Your task to perform on an android device: toggle data saver in the chrome app Image 0: 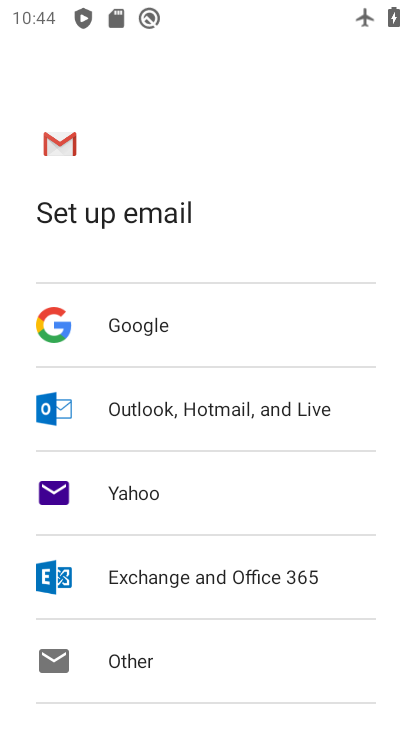
Step 0: press home button
Your task to perform on an android device: toggle data saver in the chrome app Image 1: 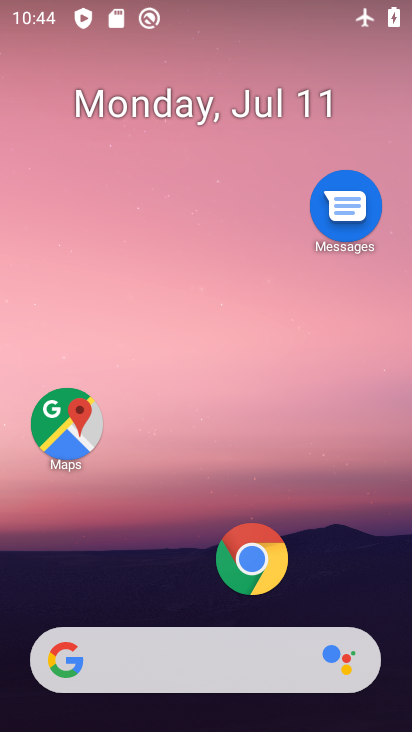
Step 1: drag from (344, 550) to (341, 147)
Your task to perform on an android device: toggle data saver in the chrome app Image 2: 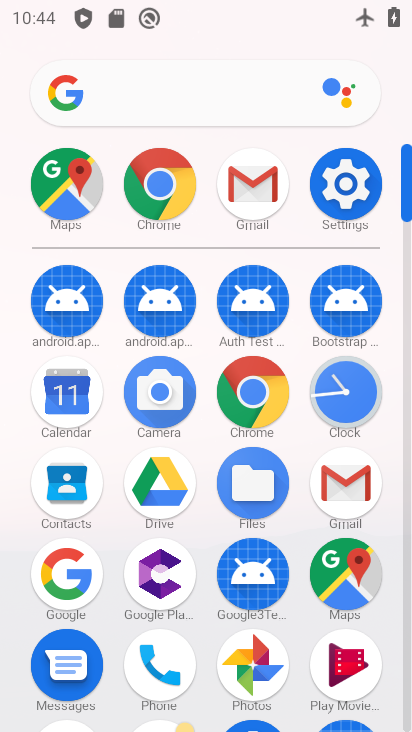
Step 2: click (255, 372)
Your task to perform on an android device: toggle data saver in the chrome app Image 3: 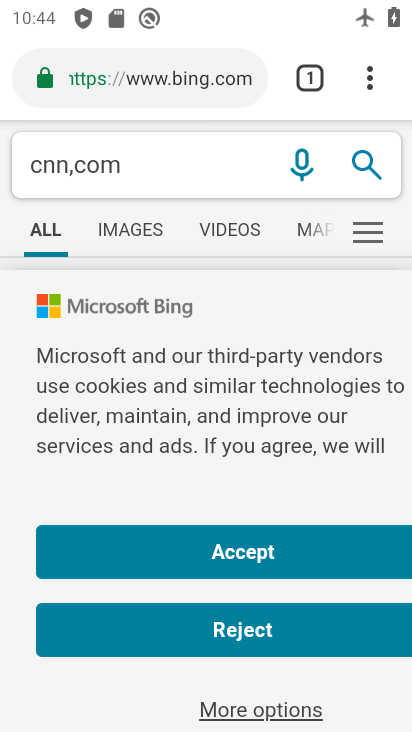
Step 3: click (367, 85)
Your task to perform on an android device: toggle data saver in the chrome app Image 4: 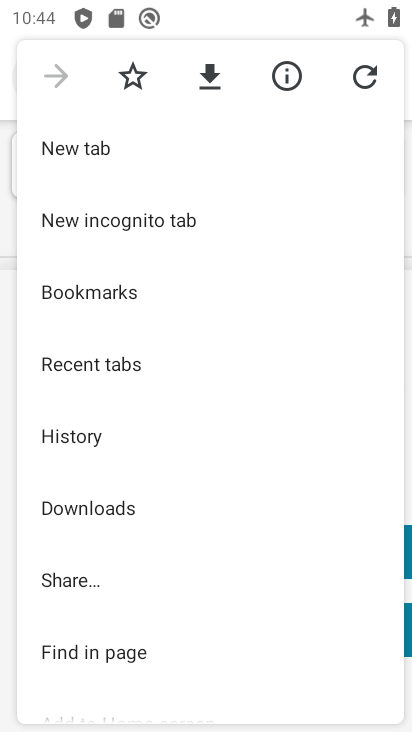
Step 4: drag from (342, 392) to (324, 296)
Your task to perform on an android device: toggle data saver in the chrome app Image 5: 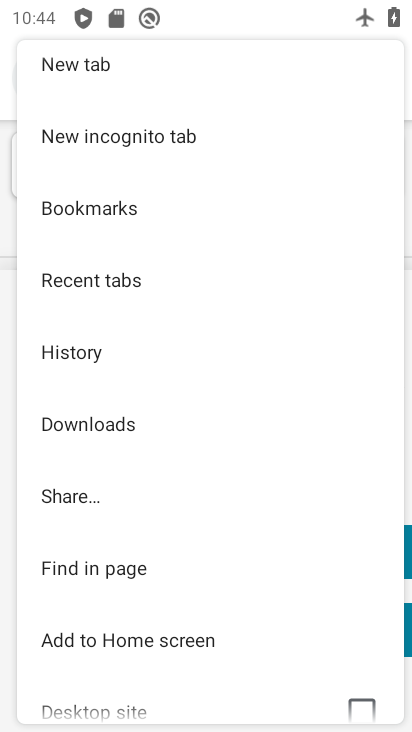
Step 5: drag from (324, 408) to (323, 322)
Your task to perform on an android device: toggle data saver in the chrome app Image 6: 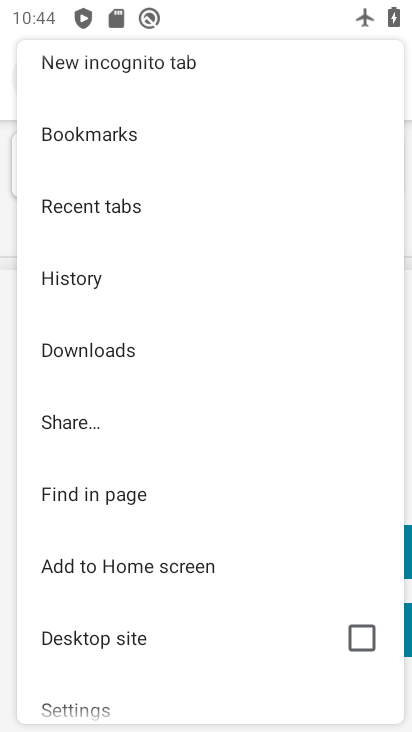
Step 6: drag from (337, 446) to (328, 344)
Your task to perform on an android device: toggle data saver in the chrome app Image 7: 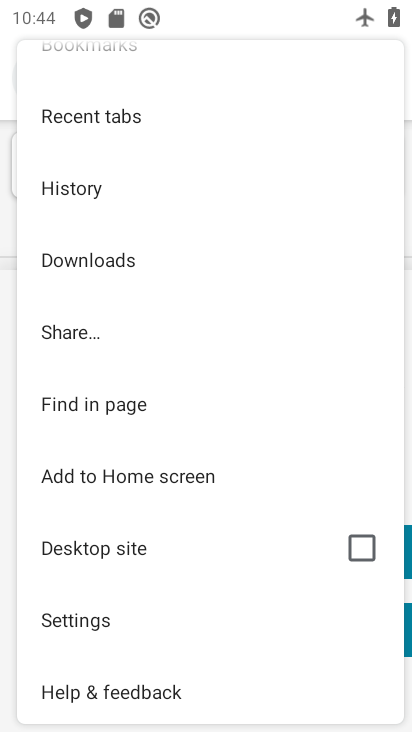
Step 7: drag from (314, 531) to (310, 421)
Your task to perform on an android device: toggle data saver in the chrome app Image 8: 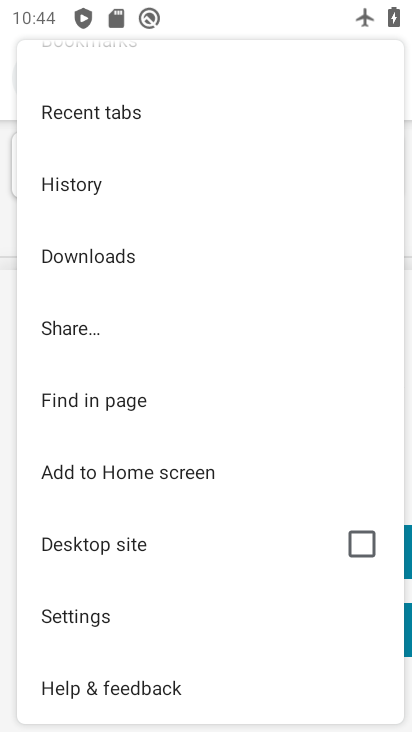
Step 8: click (123, 617)
Your task to perform on an android device: toggle data saver in the chrome app Image 9: 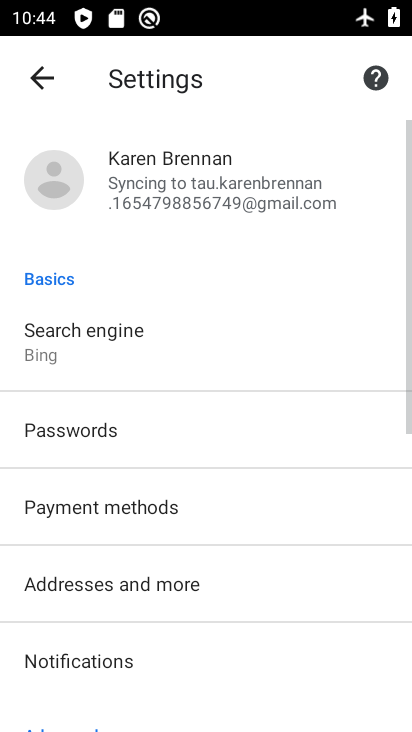
Step 9: drag from (290, 502) to (294, 418)
Your task to perform on an android device: toggle data saver in the chrome app Image 10: 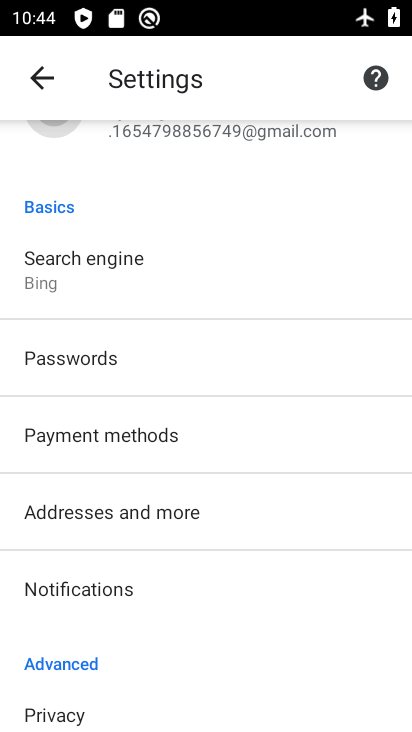
Step 10: drag from (295, 549) to (301, 464)
Your task to perform on an android device: toggle data saver in the chrome app Image 11: 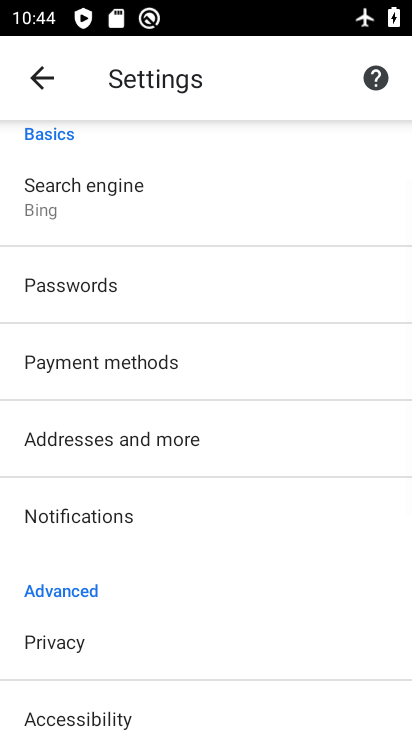
Step 11: drag from (296, 530) to (300, 449)
Your task to perform on an android device: toggle data saver in the chrome app Image 12: 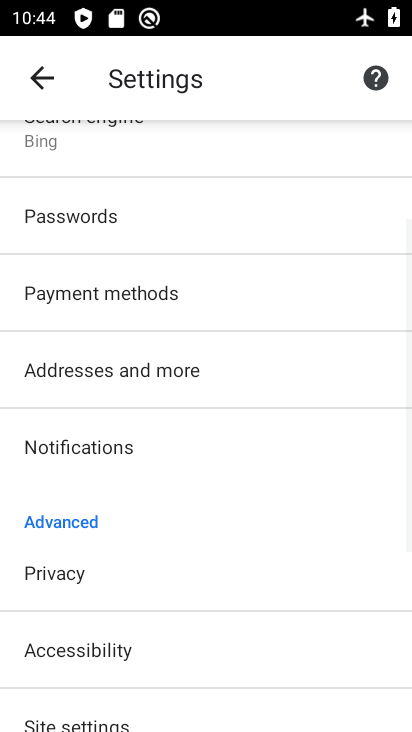
Step 12: drag from (291, 513) to (294, 422)
Your task to perform on an android device: toggle data saver in the chrome app Image 13: 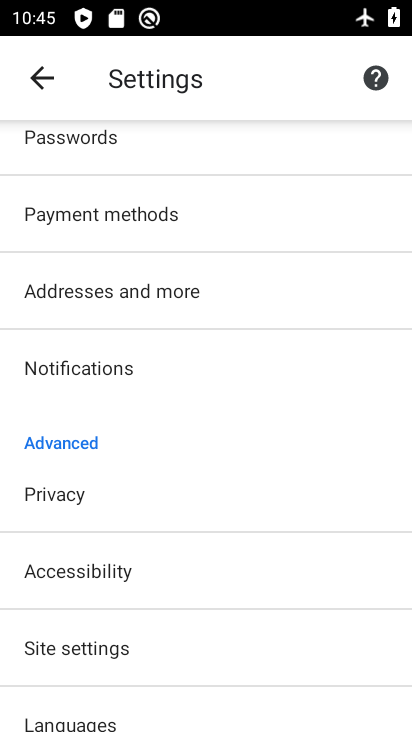
Step 13: drag from (289, 519) to (290, 417)
Your task to perform on an android device: toggle data saver in the chrome app Image 14: 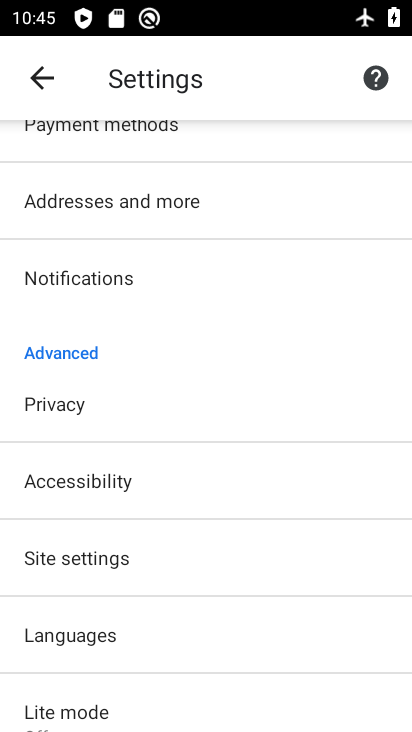
Step 14: drag from (275, 564) to (278, 455)
Your task to perform on an android device: toggle data saver in the chrome app Image 15: 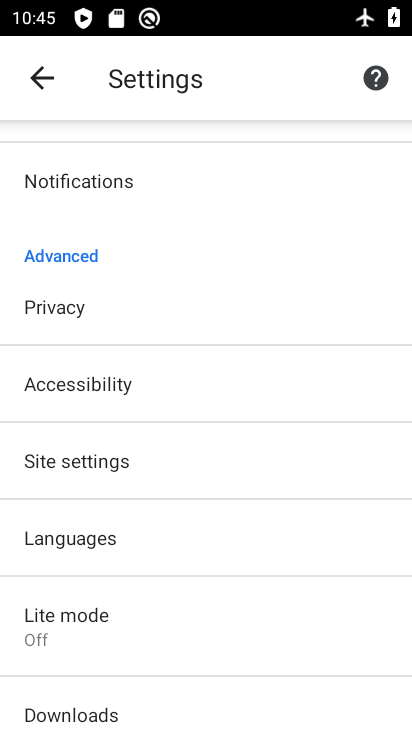
Step 15: drag from (288, 525) to (301, 369)
Your task to perform on an android device: toggle data saver in the chrome app Image 16: 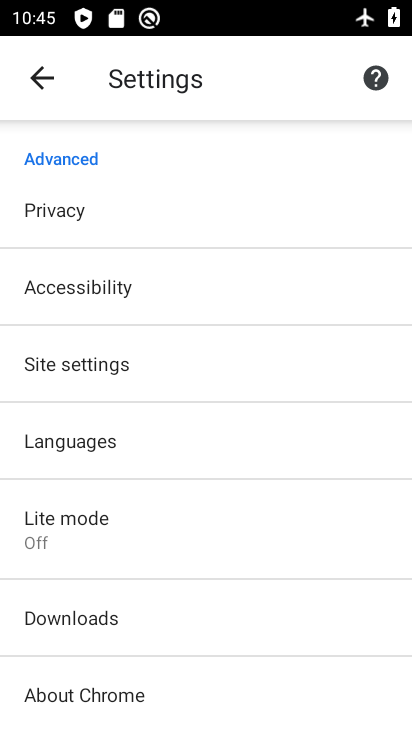
Step 16: click (309, 514)
Your task to perform on an android device: toggle data saver in the chrome app Image 17: 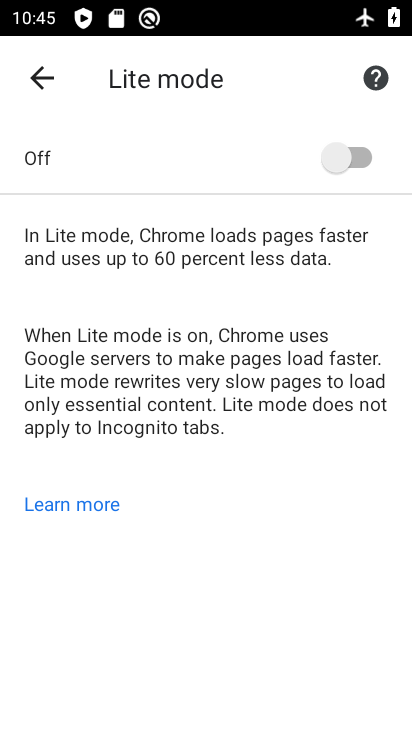
Step 17: click (359, 159)
Your task to perform on an android device: toggle data saver in the chrome app Image 18: 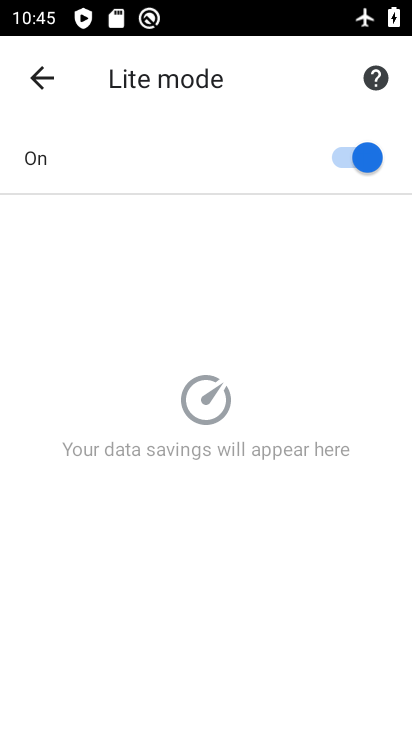
Step 18: task complete